Your task to perform on an android device: set the stopwatch Image 0: 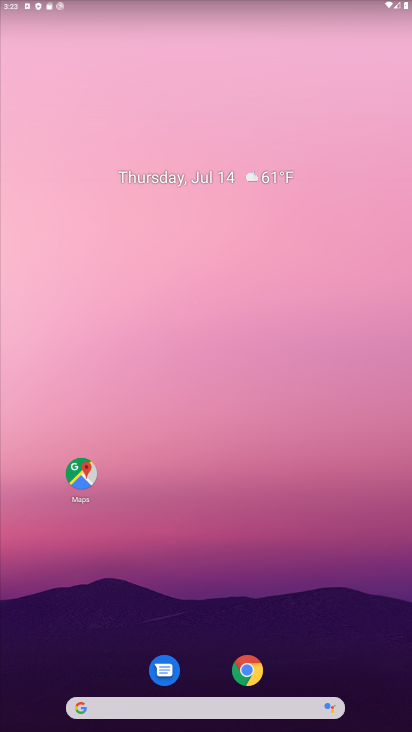
Step 0: drag from (225, 640) to (222, 247)
Your task to perform on an android device: set the stopwatch Image 1: 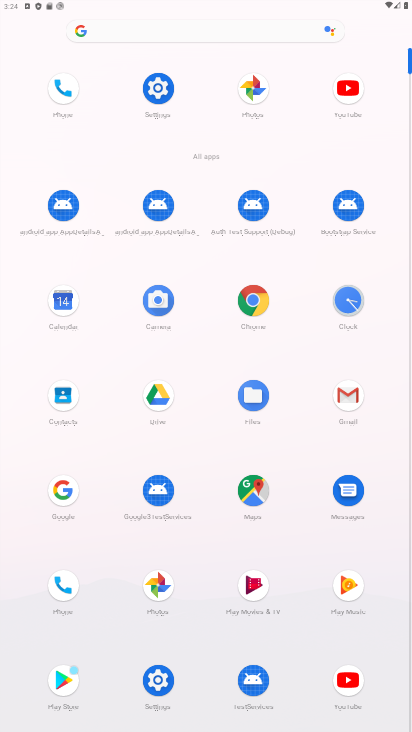
Step 1: click (340, 298)
Your task to perform on an android device: set the stopwatch Image 2: 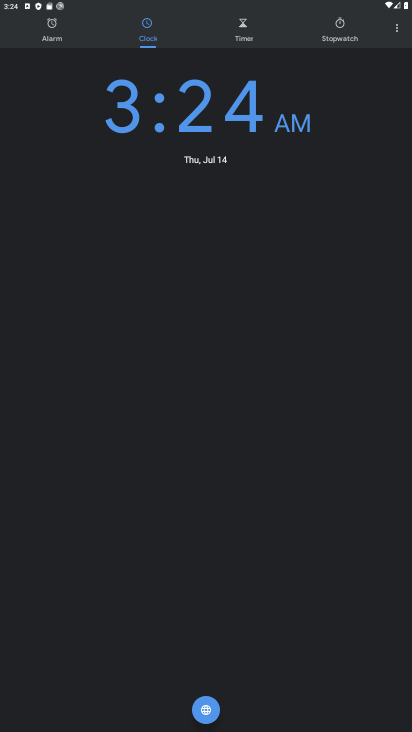
Step 2: click (331, 30)
Your task to perform on an android device: set the stopwatch Image 3: 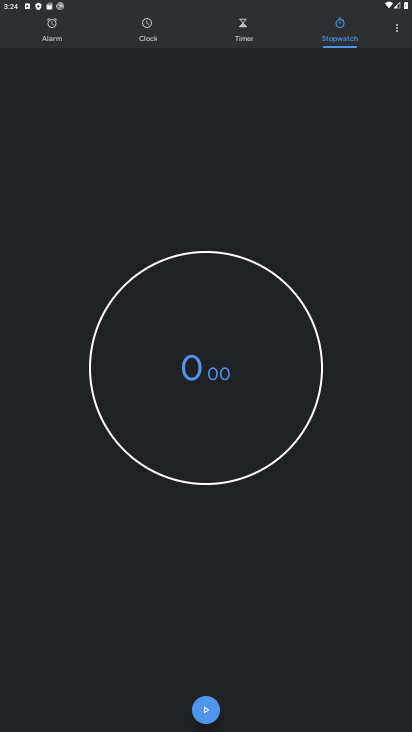
Step 3: task complete